Your task to perform on an android device: Check the weather Image 0: 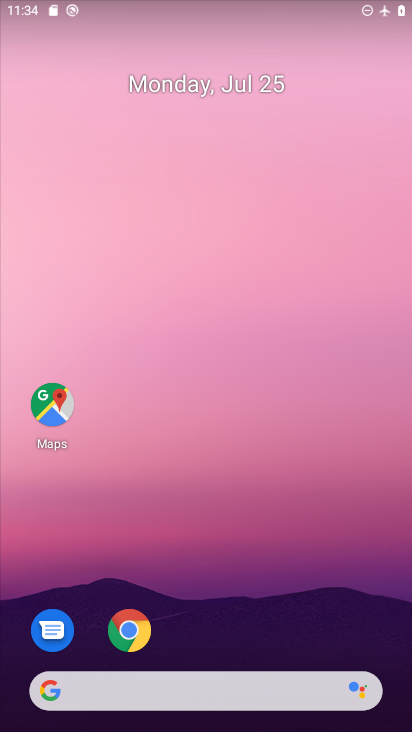
Step 0: click (132, 686)
Your task to perform on an android device: Check the weather Image 1: 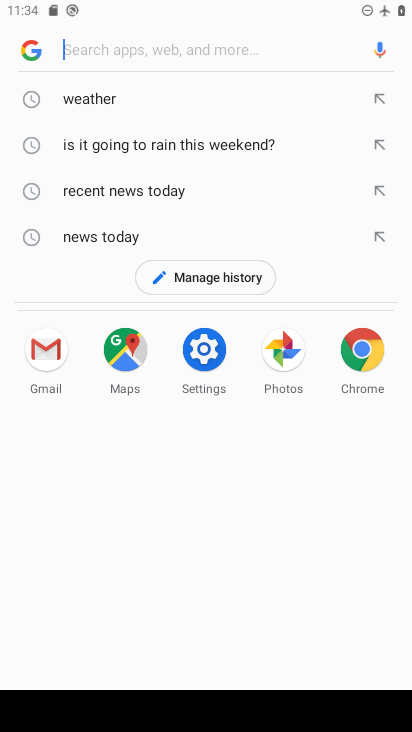
Step 1: click (91, 106)
Your task to perform on an android device: Check the weather Image 2: 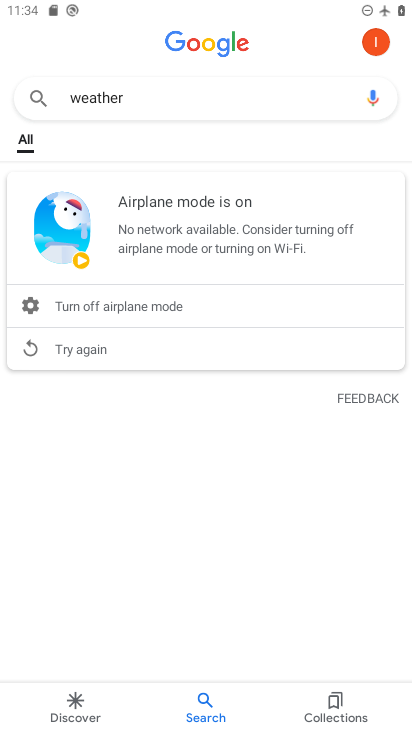
Step 2: task complete